Your task to perform on an android device: Clear the shopping cart on bestbuy. Search for "apple airpods" on bestbuy, select the first entry, and add it to the cart. Image 0: 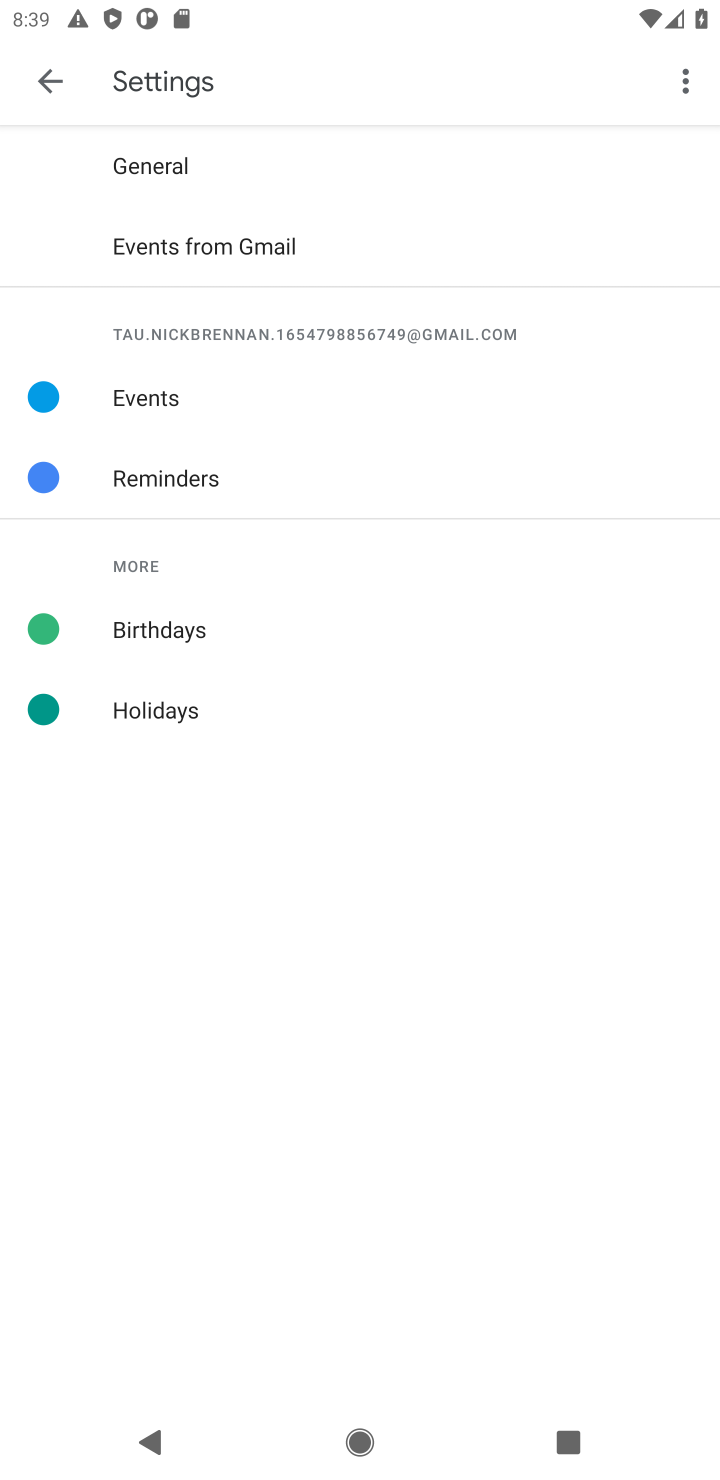
Step 0: press home button
Your task to perform on an android device: Clear the shopping cart on bestbuy. Search for "apple airpods" on bestbuy, select the first entry, and add it to the cart. Image 1: 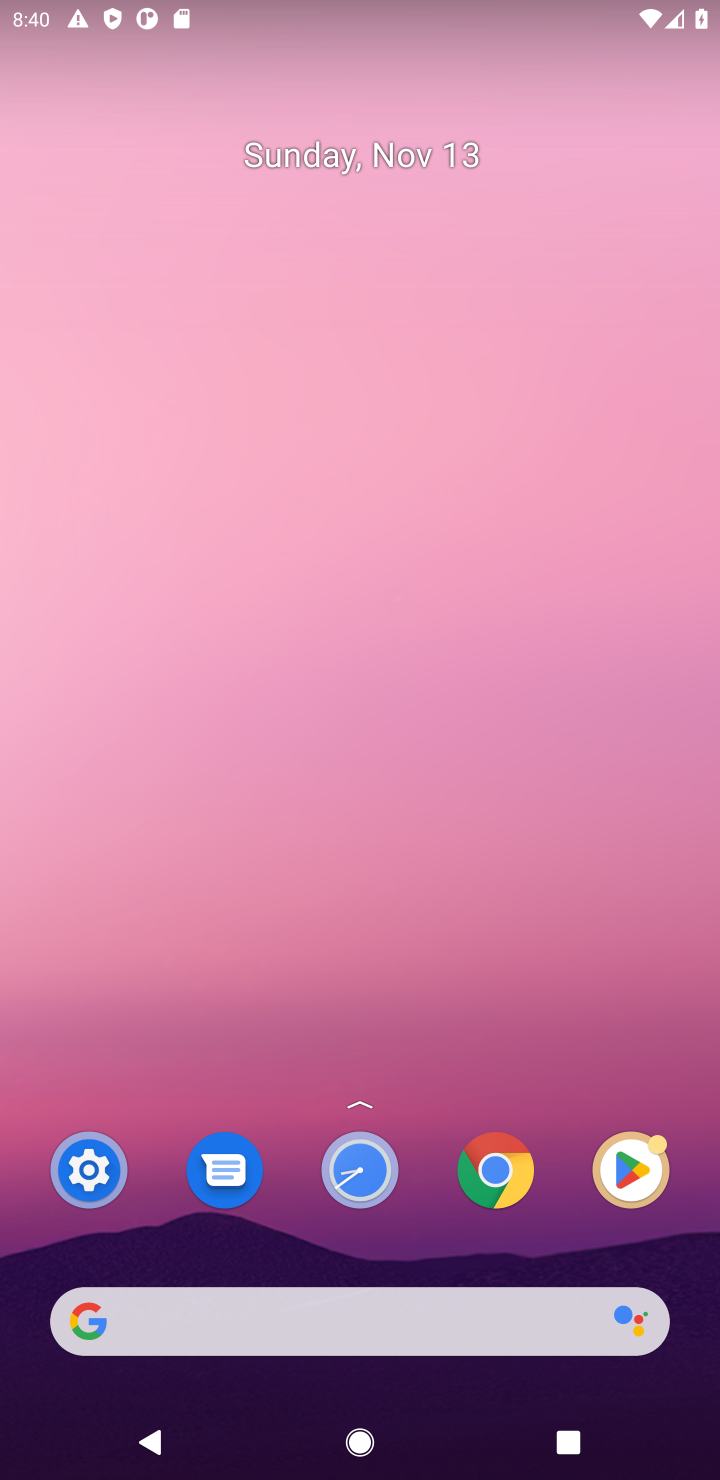
Step 1: click (365, 1317)
Your task to perform on an android device: Clear the shopping cart on bestbuy. Search for "apple airpods" on bestbuy, select the first entry, and add it to the cart. Image 2: 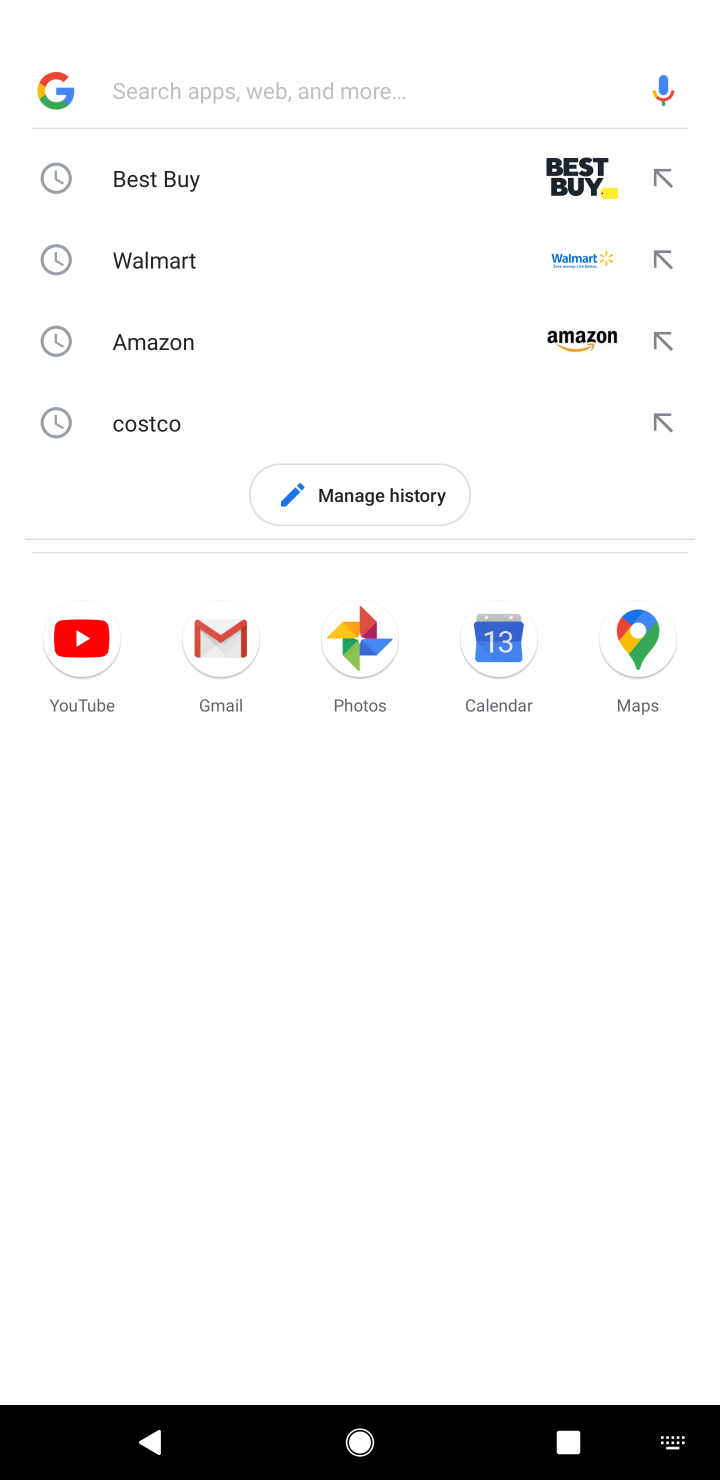
Step 2: type "bestbuy"
Your task to perform on an android device: Clear the shopping cart on bestbuy. Search for "apple airpods" on bestbuy, select the first entry, and add it to the cart. Image 3: 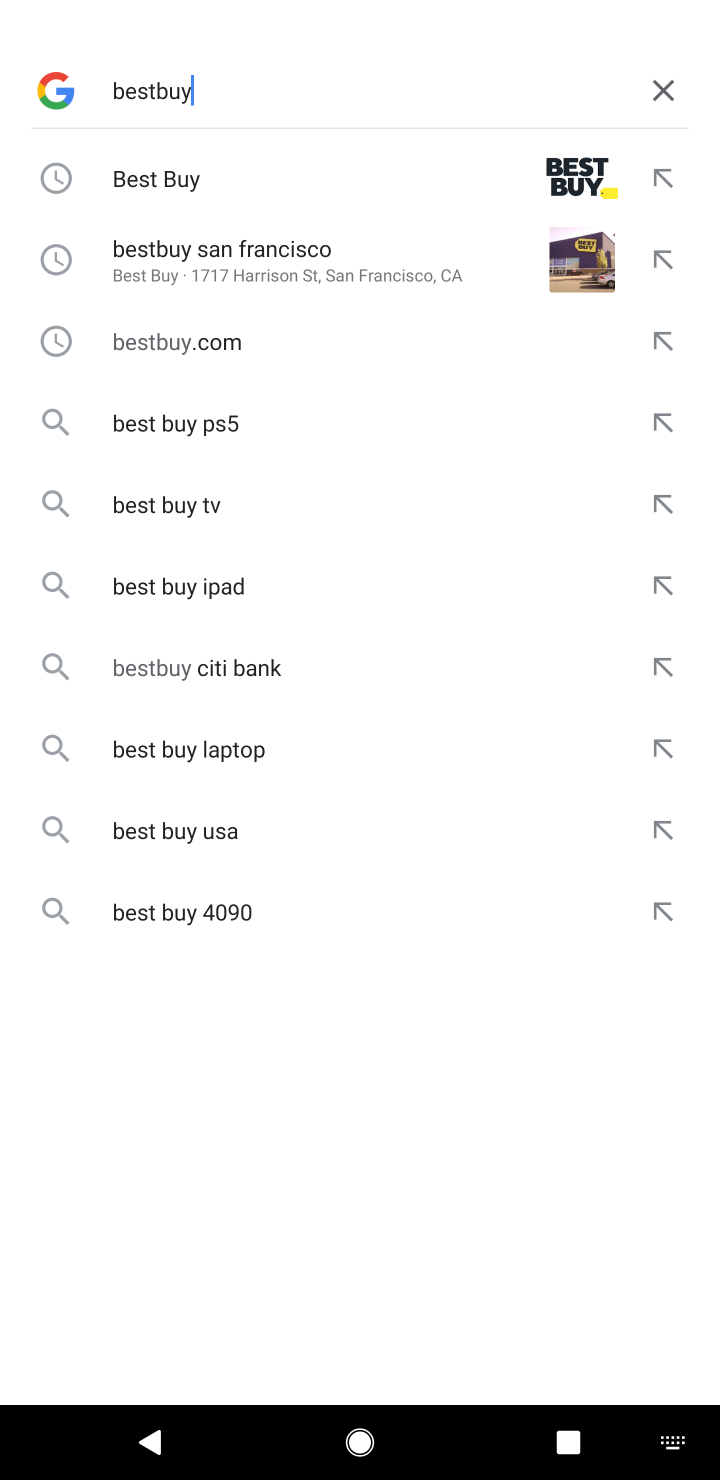
Step 3: click (350, 182)
Your task to perform on an android device: Clear the shopping cart on bestbuy. Search for "apple airpods" on bestbuy, select the first entry, and add it to the cart. Image 4: 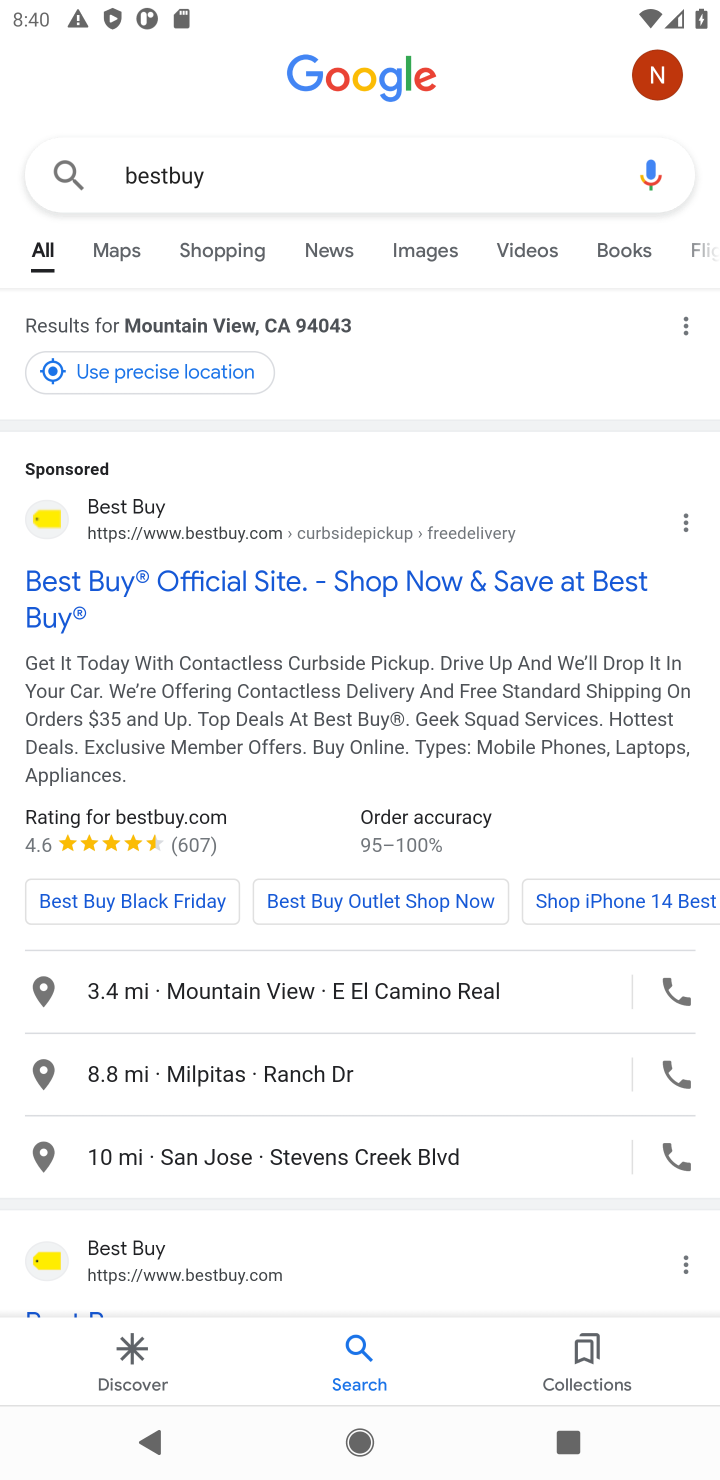
Step 4: click (134, 592)
Your task to perform on an android device: Clear the shopping cart on bestbuy. Search for "apple airpods" on bestbuy, select the first entry, and add it to the cart. Image 5: 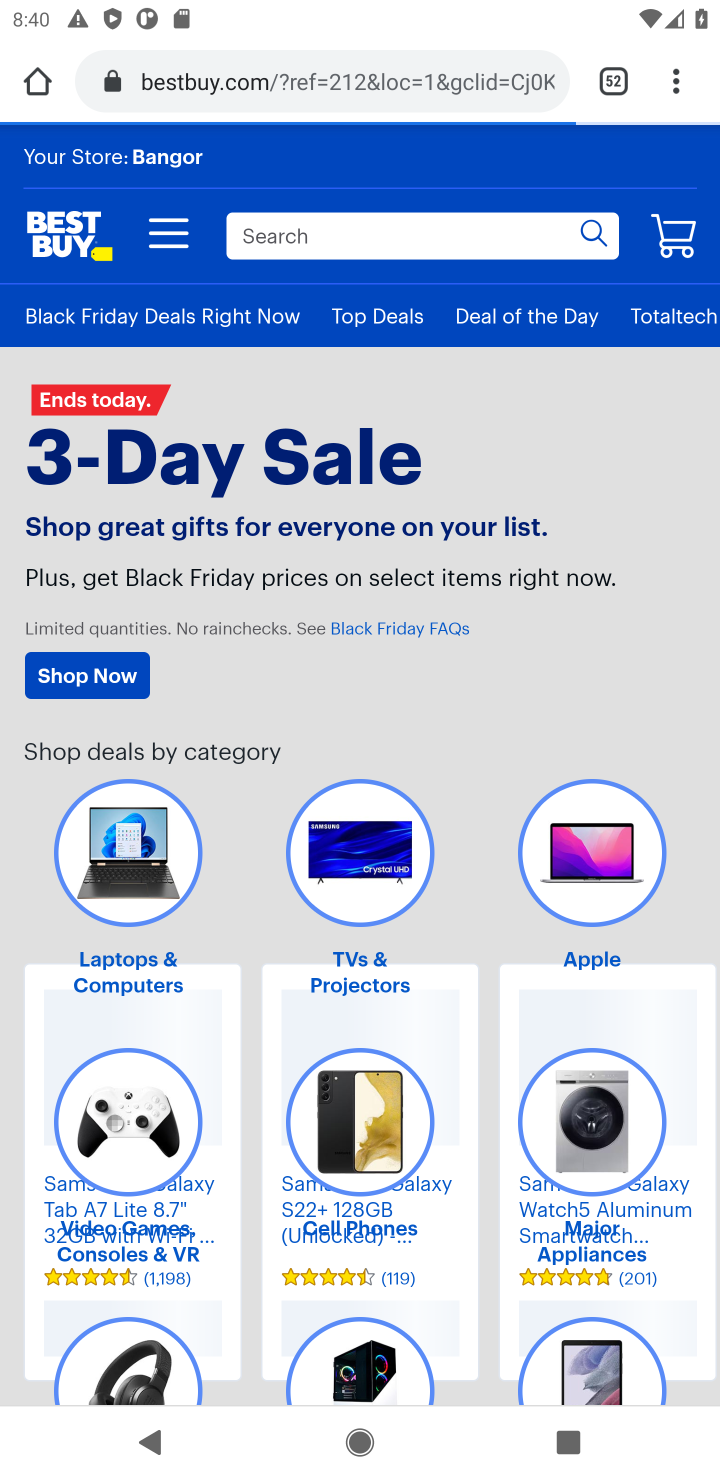
Step 5: click (482, 232)
Your task to perform on an android device: Clear the shopping cart on bestbuy. Search for "apple airpods" on bestbuy, select the first entry, and add it to the cart. Image 6: 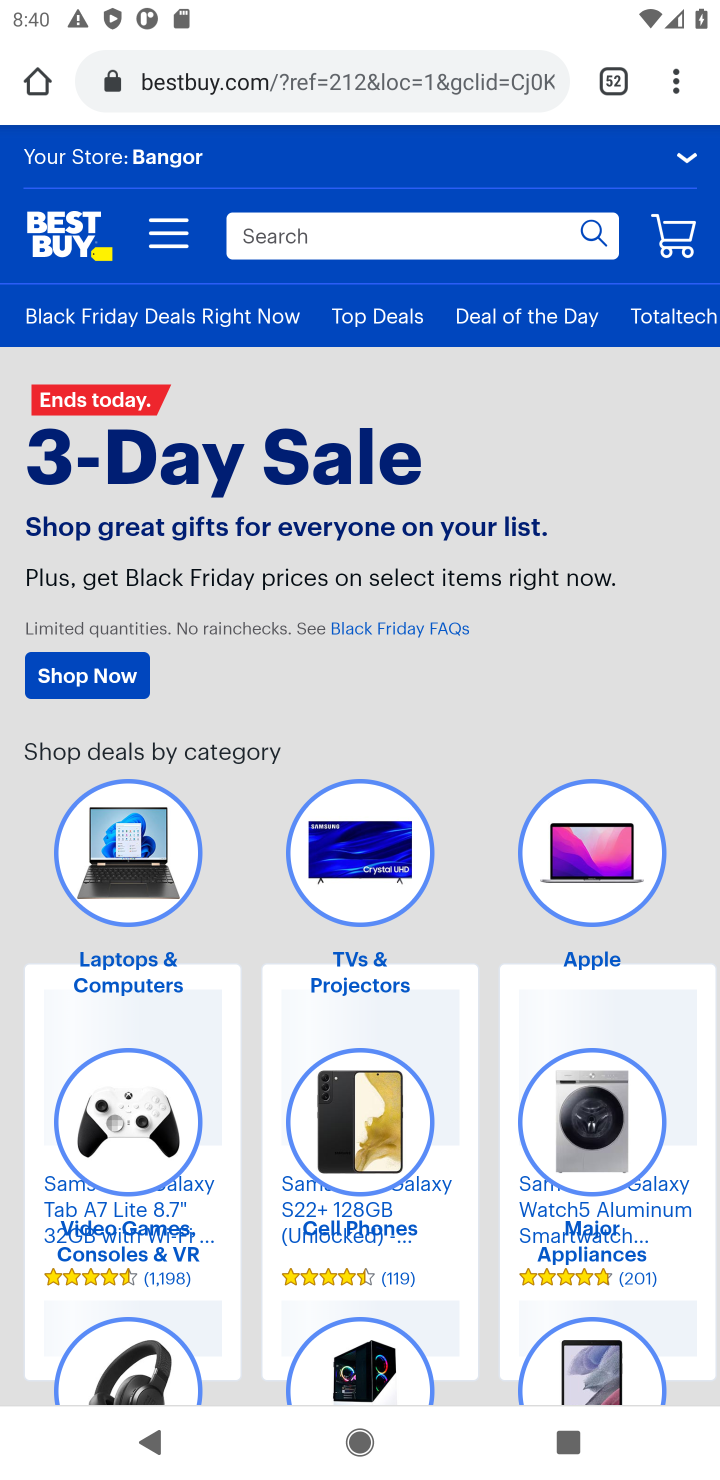
Step 6: type "apple airpods"
Your task to perform on an android device: Clear the shopping cart on bestbuy. Search for "apple airpods" on bestbuy, select the first entry, and add it to the cart. Image 7: 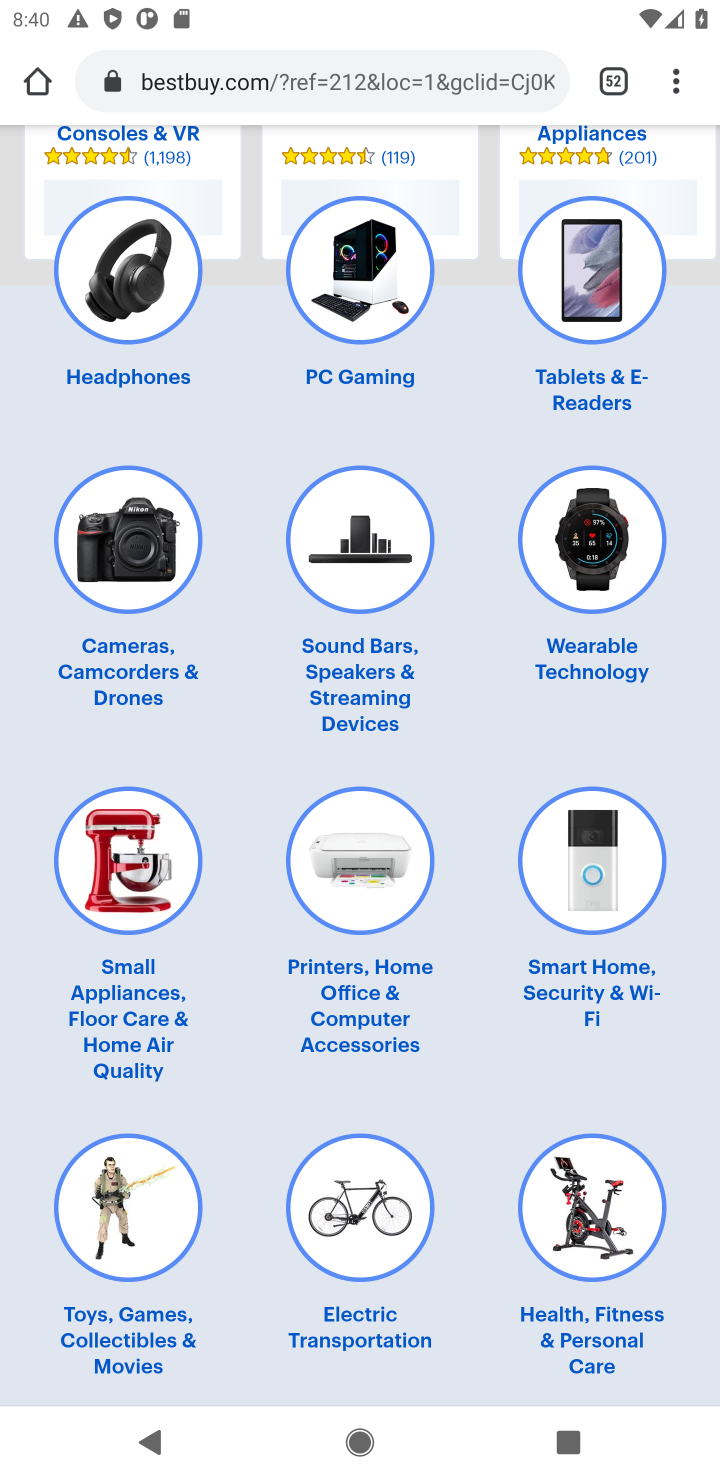
Step 7: task complete